Your task to perform on an android device: open app "Walmart Shopping & Grocery" (install if not already installed) and enter user name: "Hans@icloud.com" and password: "executing" Image 0: 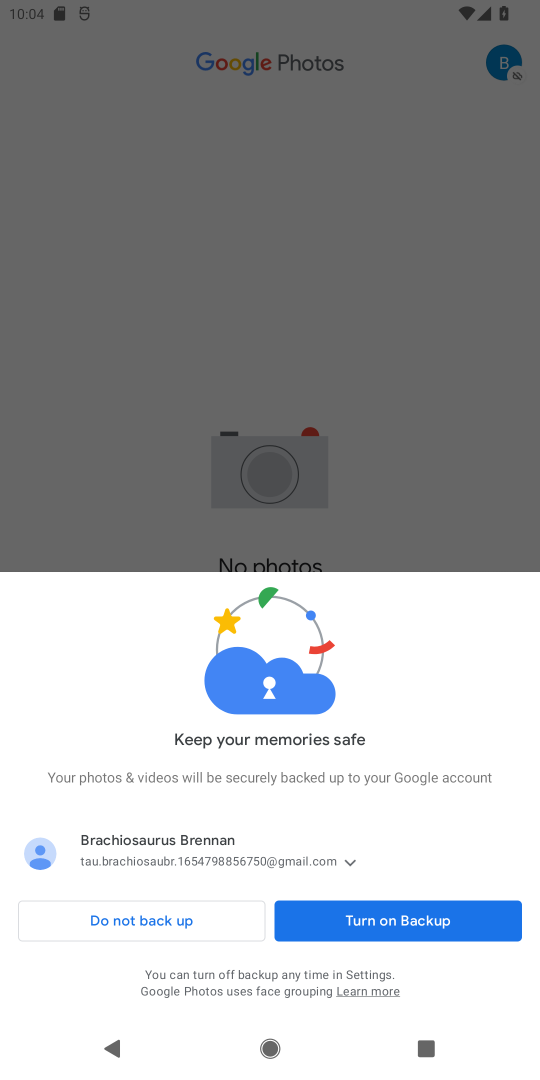
Step 0: press home button
Your task to perform on an android device: open app "Walmart Shopping & Grocery" (install if not already installed) and enter user name: "Hans@icloud.com" and password: "executing" Image 1: 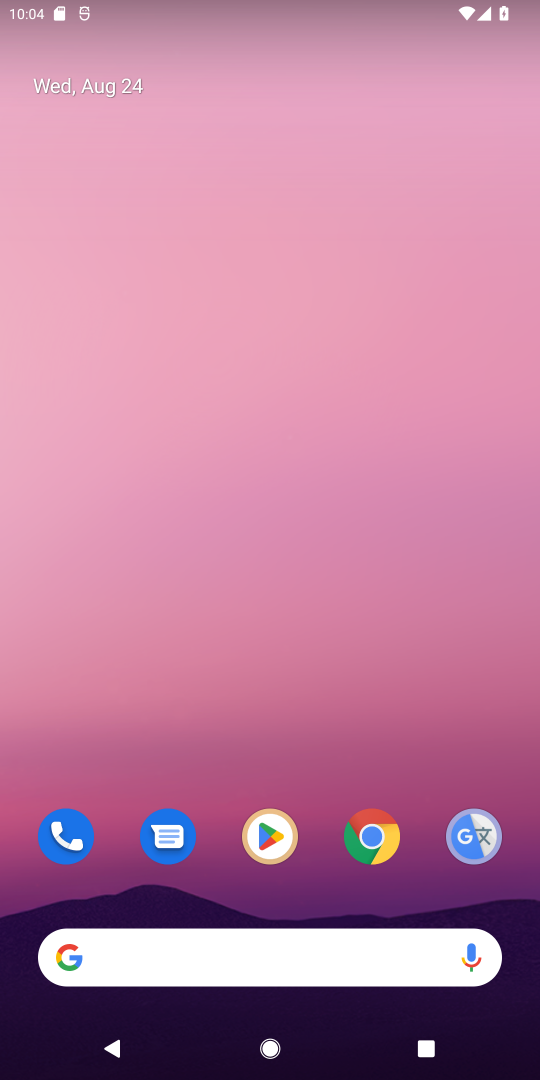
Step 1: click (277, 842)
Your task to perform on an android device: open app "Walmart Shopping & Grocery" (install if not already installed) and enter user name: "Hans@icloud.com" and password: "executing" Image 2: 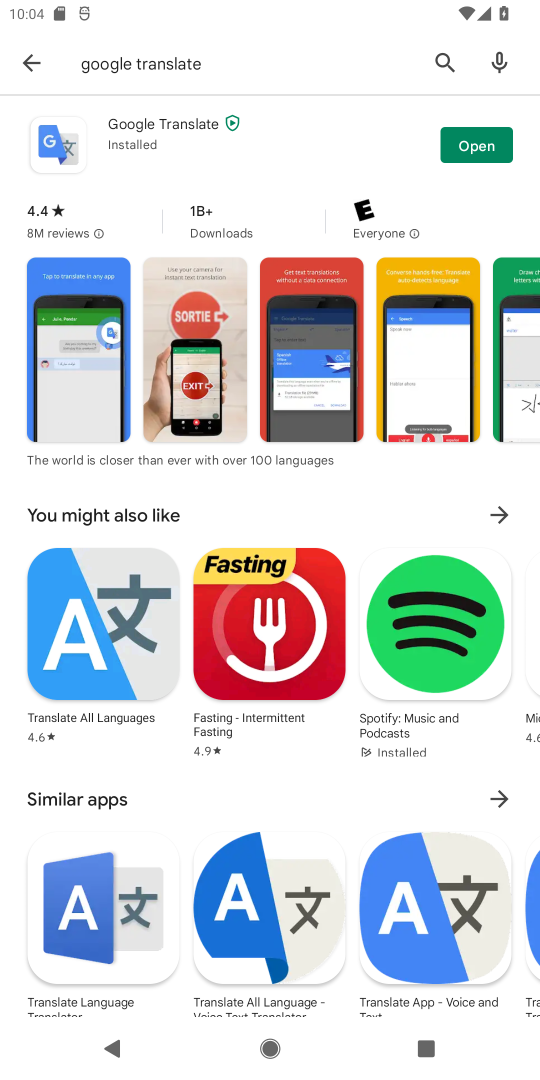
Step 2: click (444, 61)
Your task to perform on an android device: open app "Walmart Shopping & Grocery" (install if not already installed) and enter user name: "Hans@icloud.com" and password: "executing" Image 3: 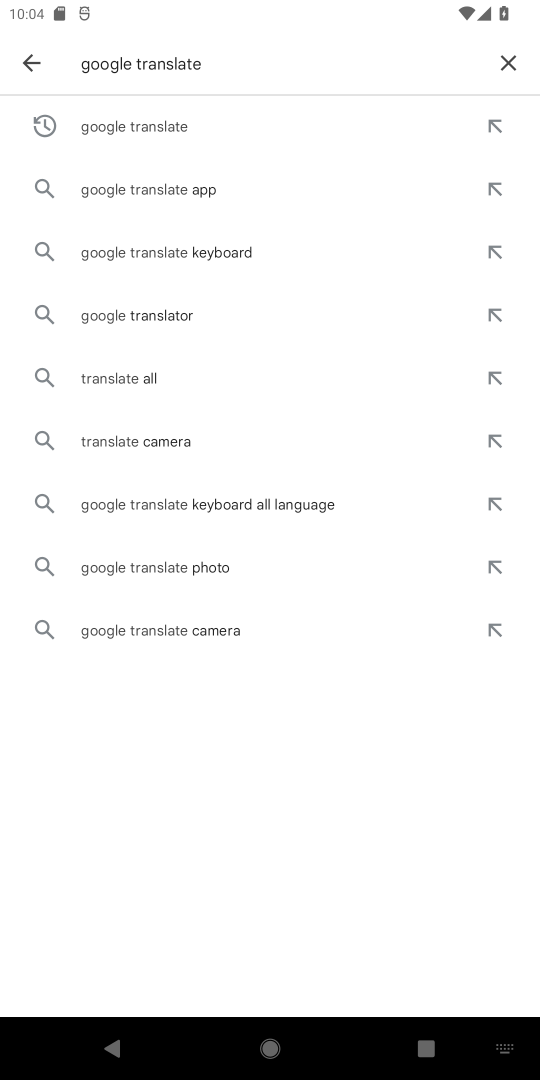
Step 3: click (512, 54)
Your task to perform on an android device: open app "Walmart Shopping & Grocery" (install if not already installed) and enter user name: "Hans@icloud.com" and password: "executing" Image 4: 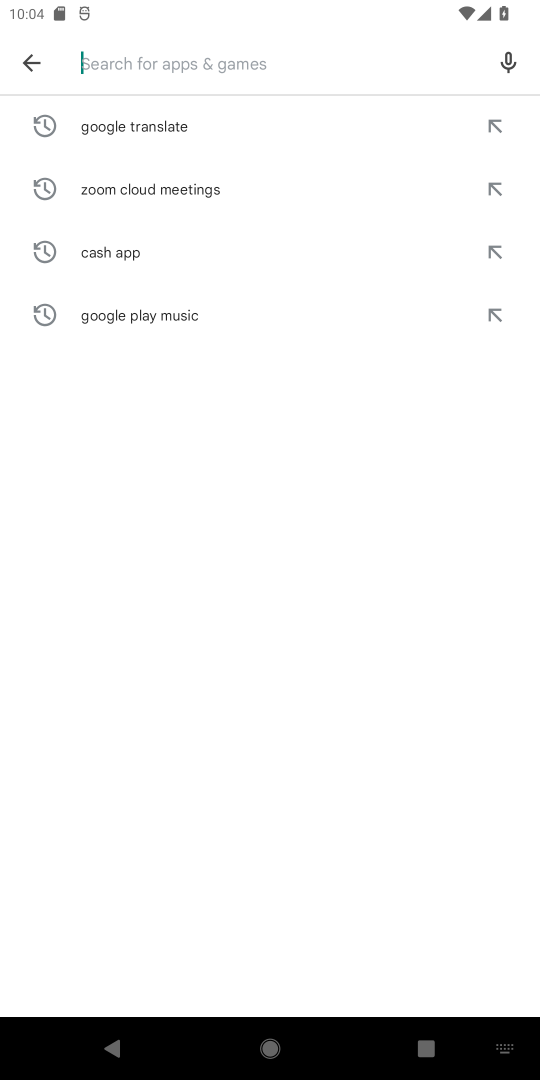
Step 4: type "Walmart Shopping & Grocery"
Your task to perform on an android device: open app "Walmart Shopping & Grocery" (install if not already installed) and enter user name: "Hans@icloud.com" and password: "executing" Image 5: 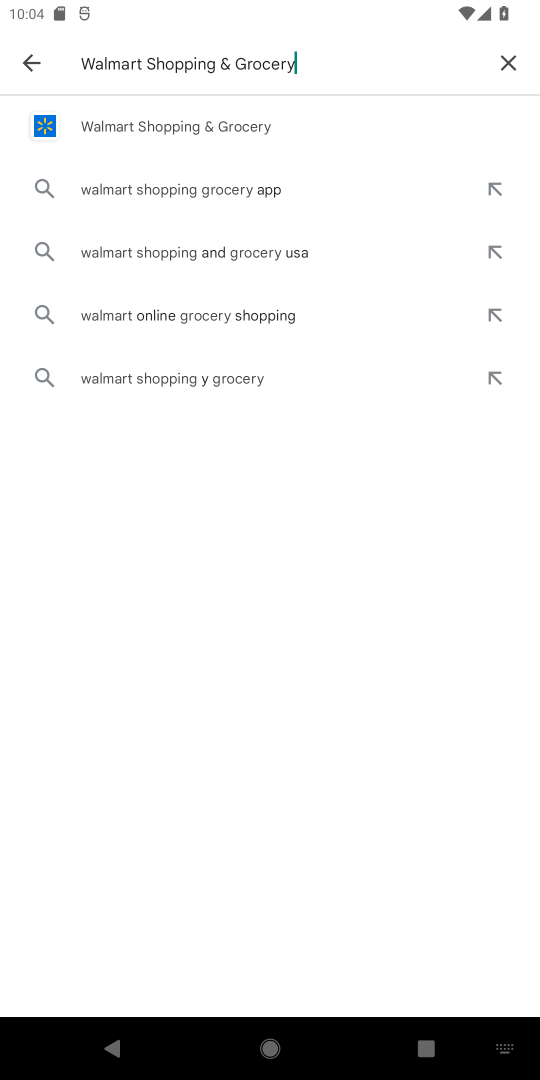
Step 5: click (254, 123)
Your task to perform on an android device: open app "Walmart Shopping & Grocery" (install if not already installed) and enter user name: "Hans@icloud.com" and password: "executing" Image 6: 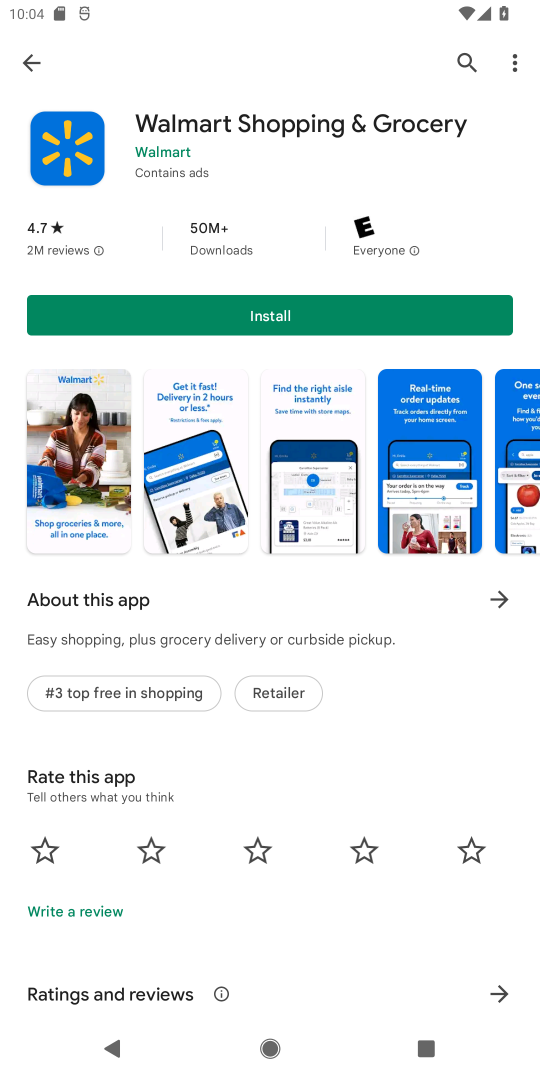
Step 6: click (274, 308)
Your task to perform on an android device: open app "Walmart Shopping & Grocery" (install if not already installed) and enter user name: "Hans@icloud.com" and password: "executing" Image 7: 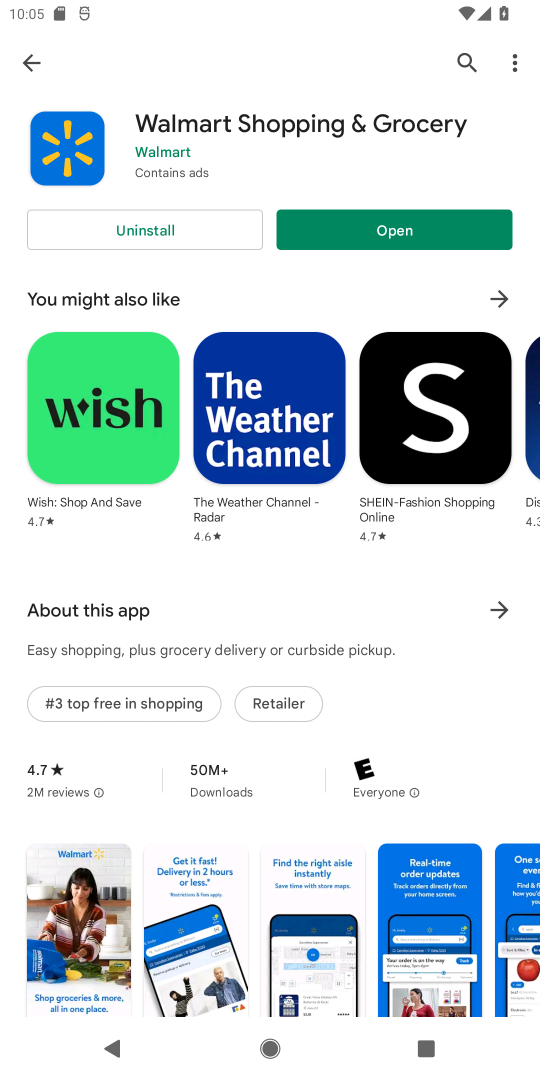
Step 7: click (388, 233)
Your task to perform on an android device: open app "Walmart Shopping & Grocery" (install if not already installed) and enter user name: "Hans@icloud.com" and password: "executing" Image 8: 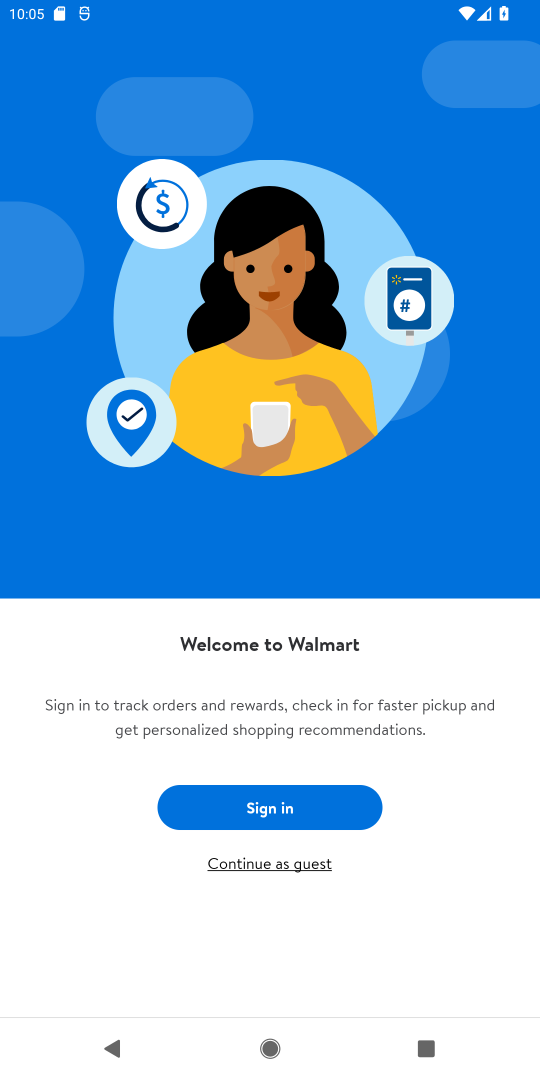
Step 8: task complete